Your task to perform on an android device: Add usb-c to the cart on bestbuy, then select checkout. Image 0: 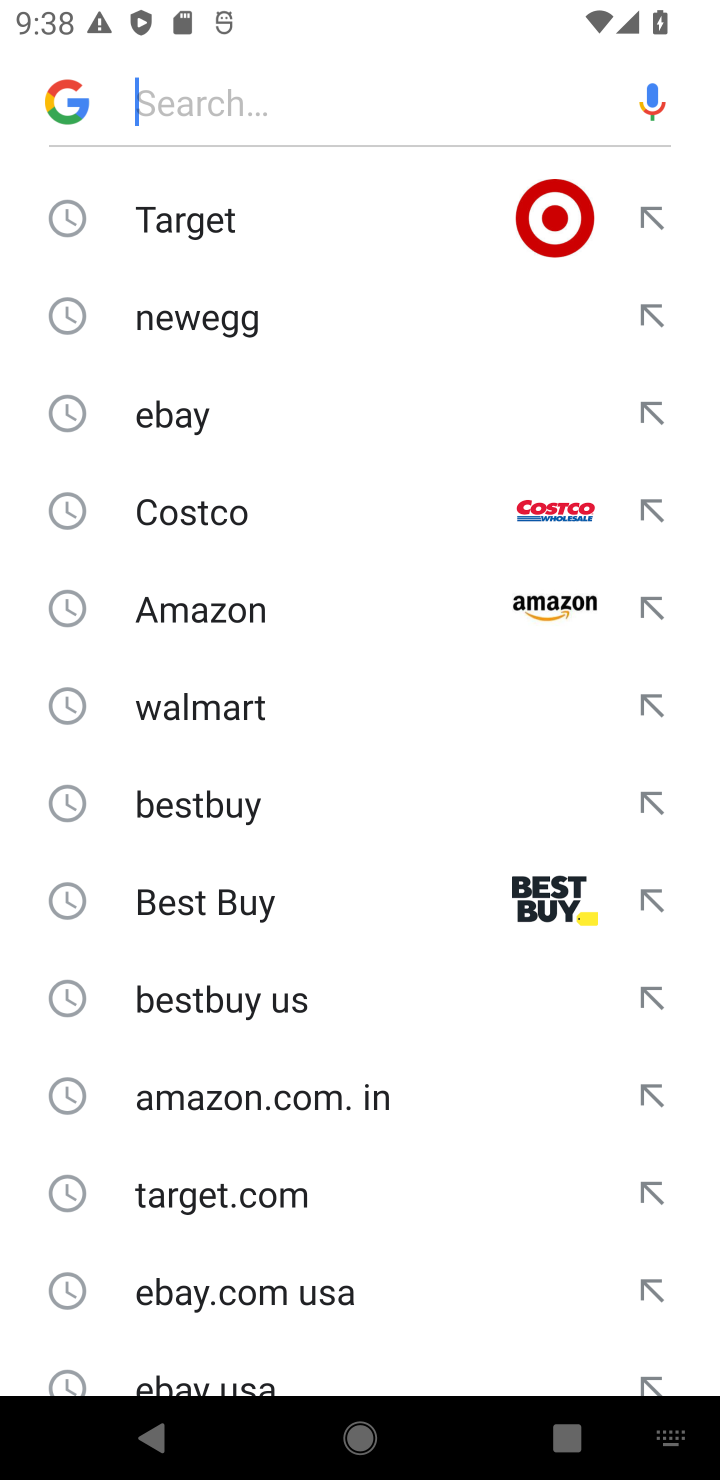
Step 0: press home button
Your task to perform on an android device: Add usb-c to the cart on bestbuy, then select checkout. Image 1: 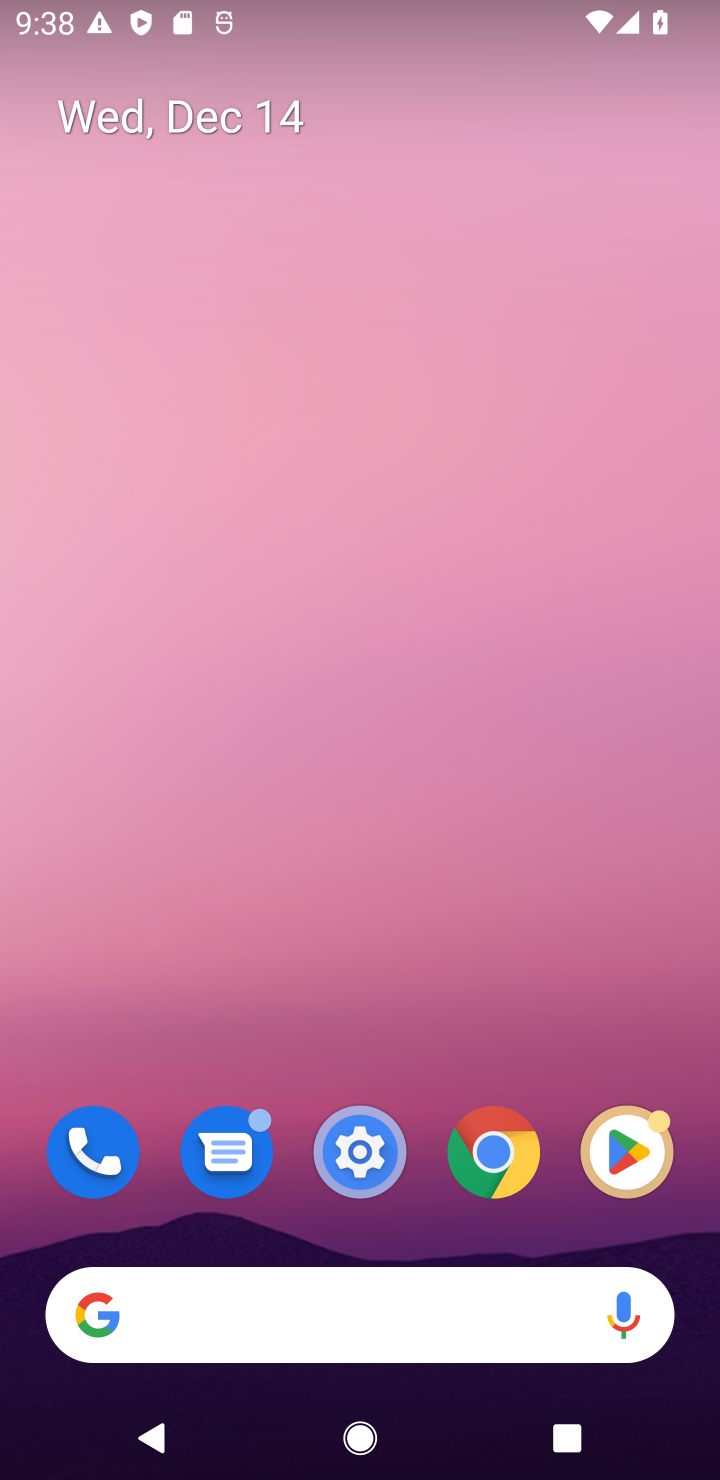
Step 1: drag from (246, 1288) to (227, 612)
Your task to perform on an android device: Add usb-c to the cart on bestbuy, then select checkout. Image 2: 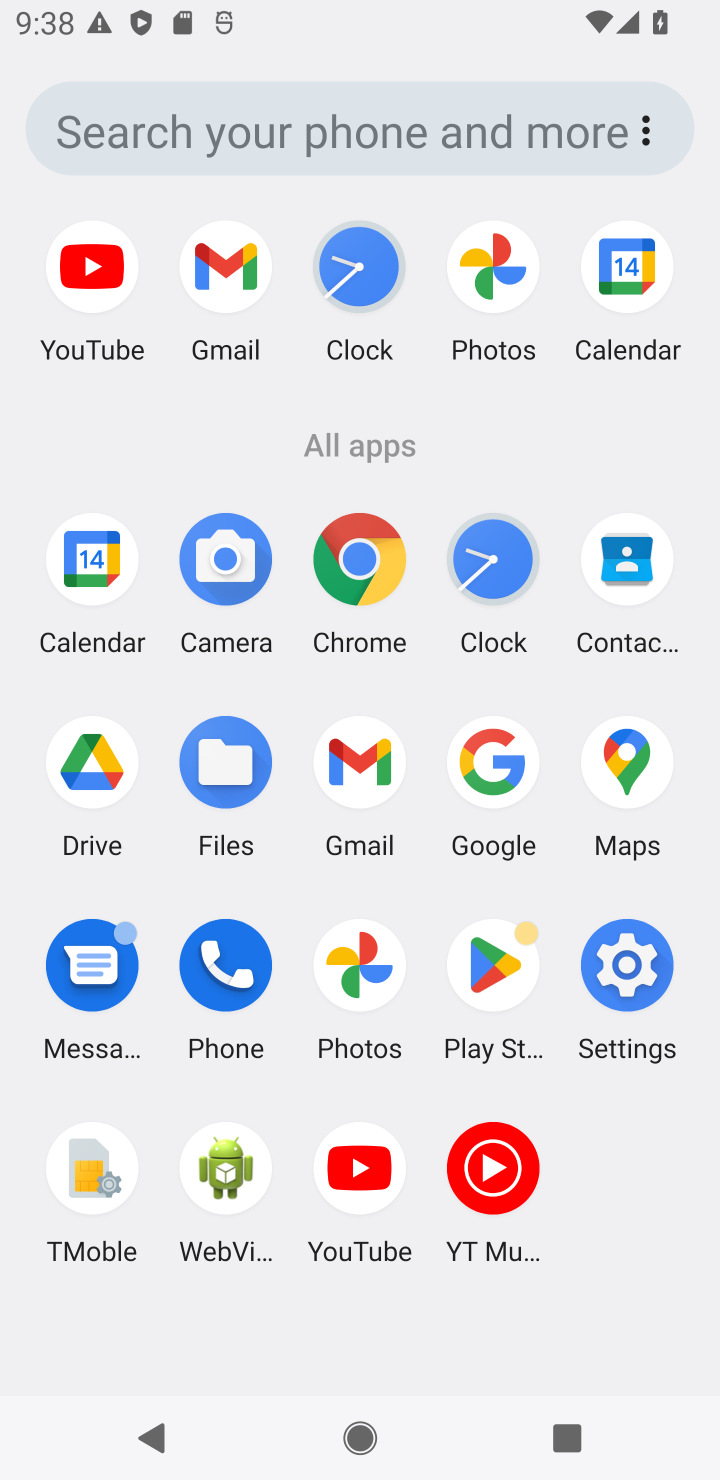
Step 2: click (502, 855)
Your task to perform on an android device: Add usb-c to the cart on bestbuy, then select checkout. Image 3: 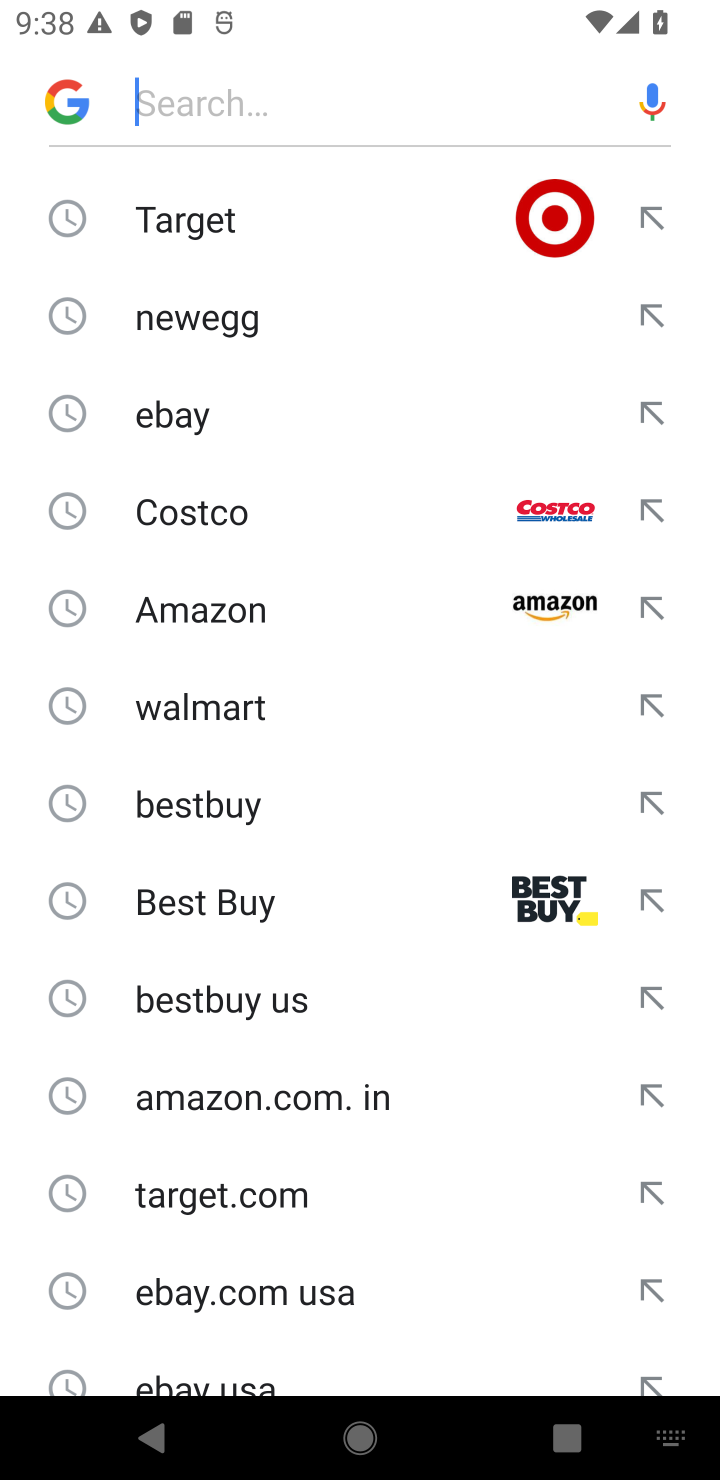
Step 3: click (196, 809)
Your task to perform on an android device: Add usb-c to the cart on bestbuy, then select checkout. Image 4: 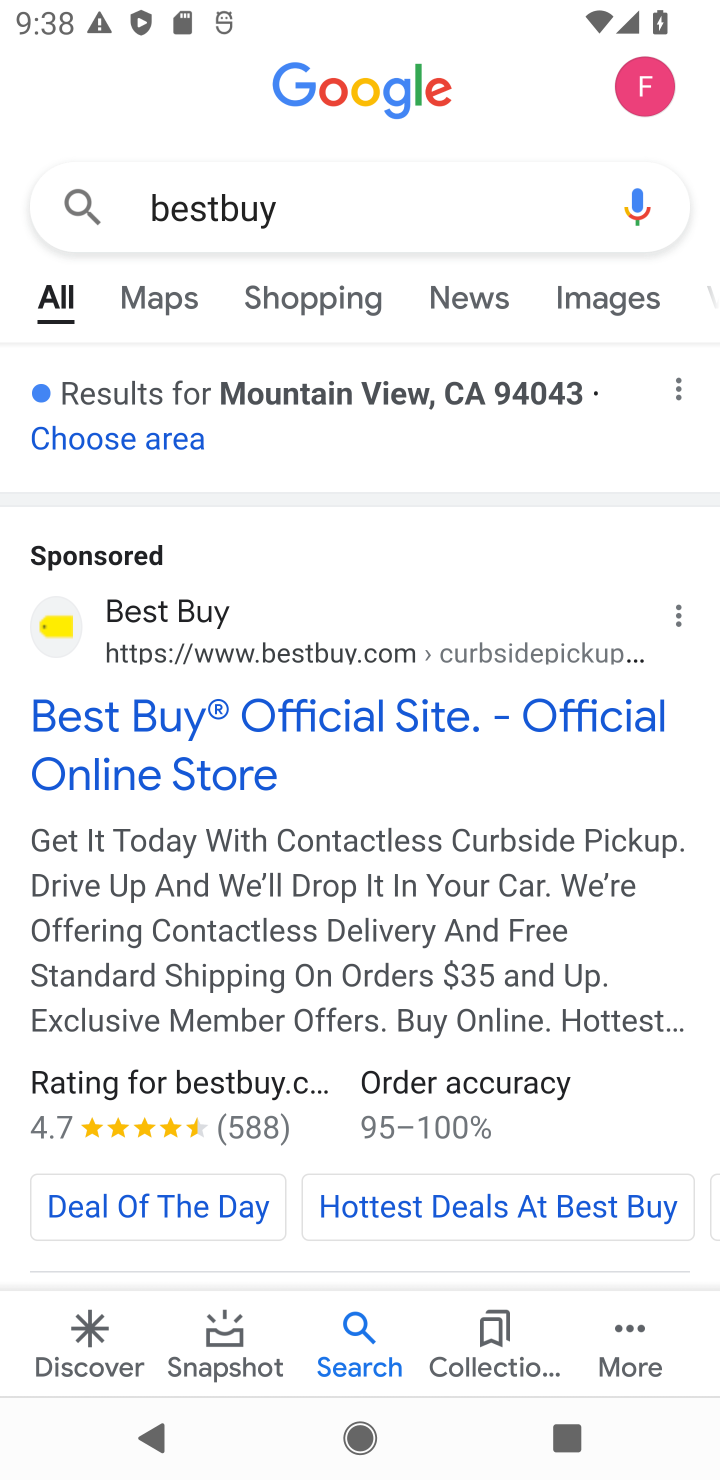
Step 4: click (193, 748)
Your task to perform on an android device: Add usb-c to the cart on bestbuy, then select checkout. Image 5: 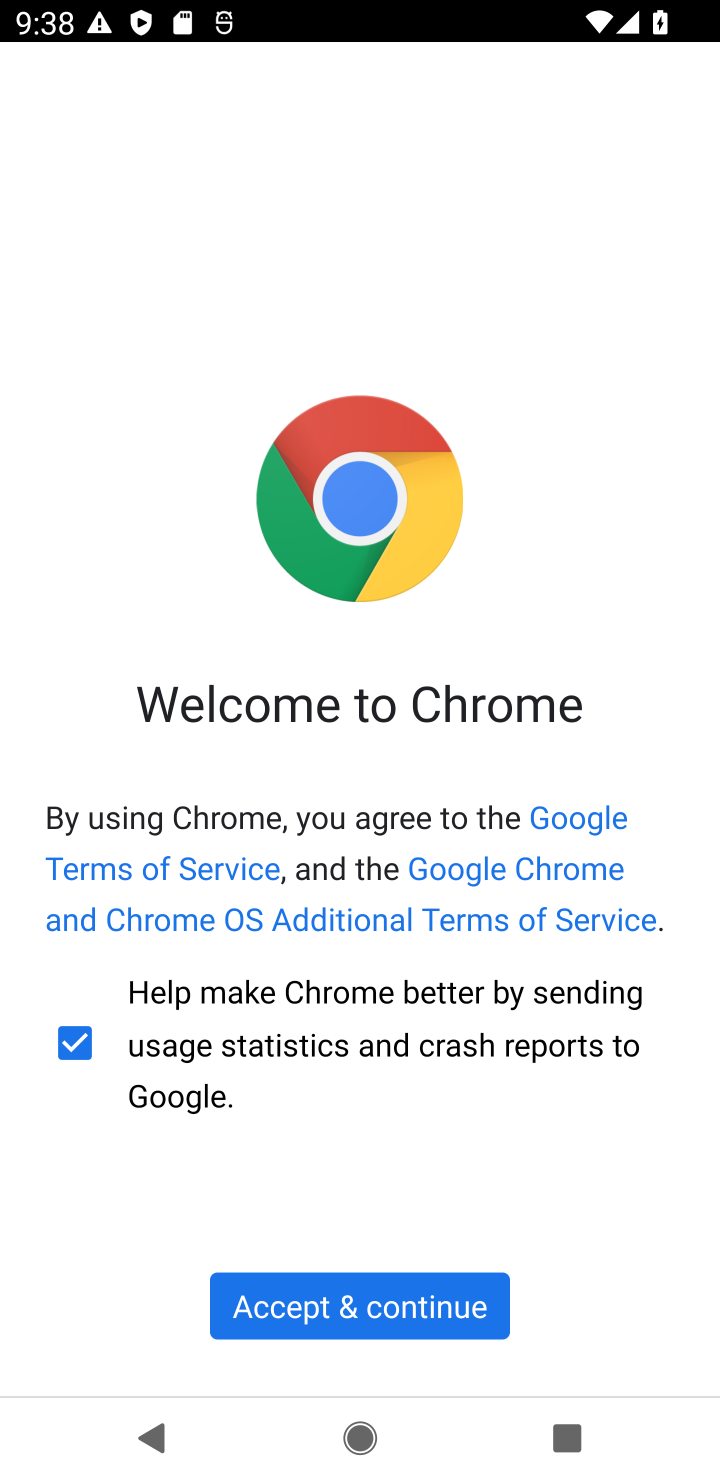
Step 5: click (297, 1307)
Your task to perform on an android device: Add usb-c to the cart on bestbuy, then select checkout. Image 6: 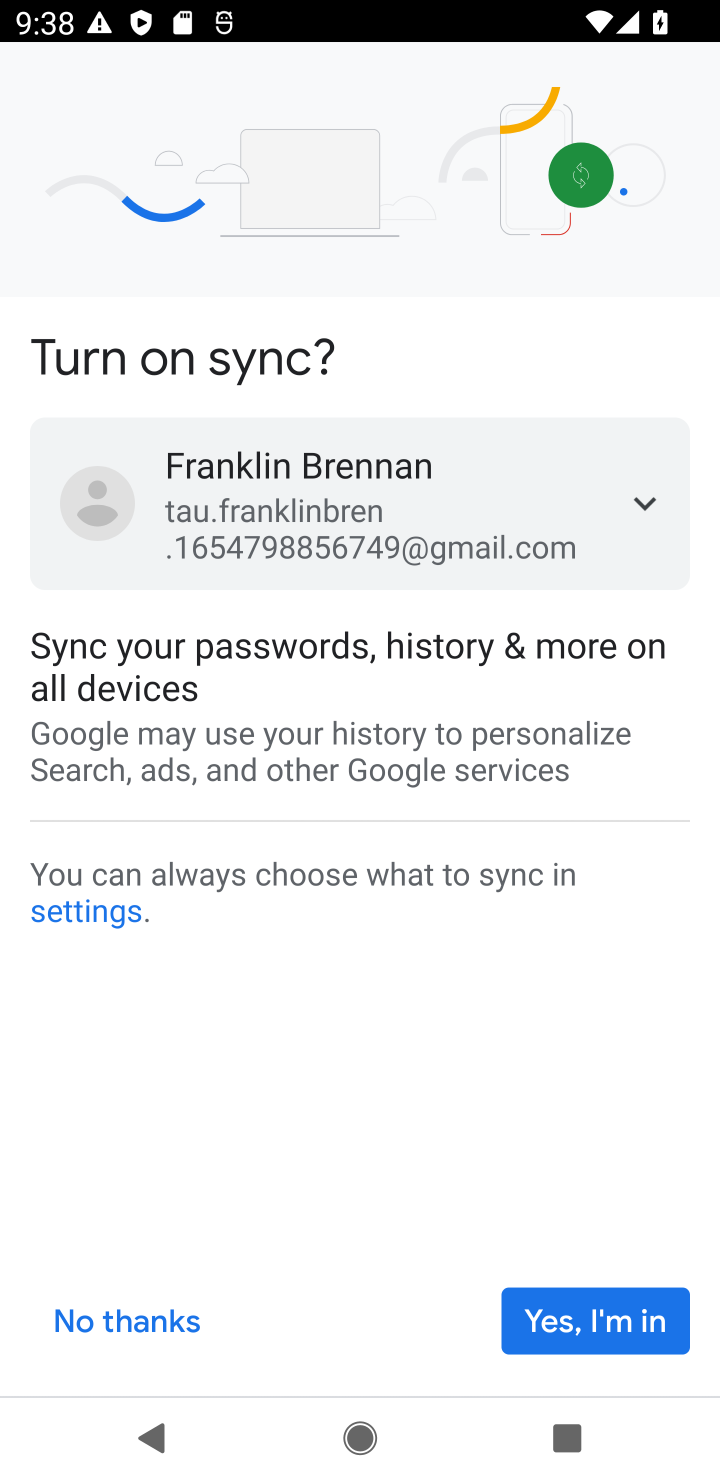
Step 6: click (534, 1329)
Your task to perform on an android device: Add usb-c to the cart on bestbuy, then select checkout. Image 7: 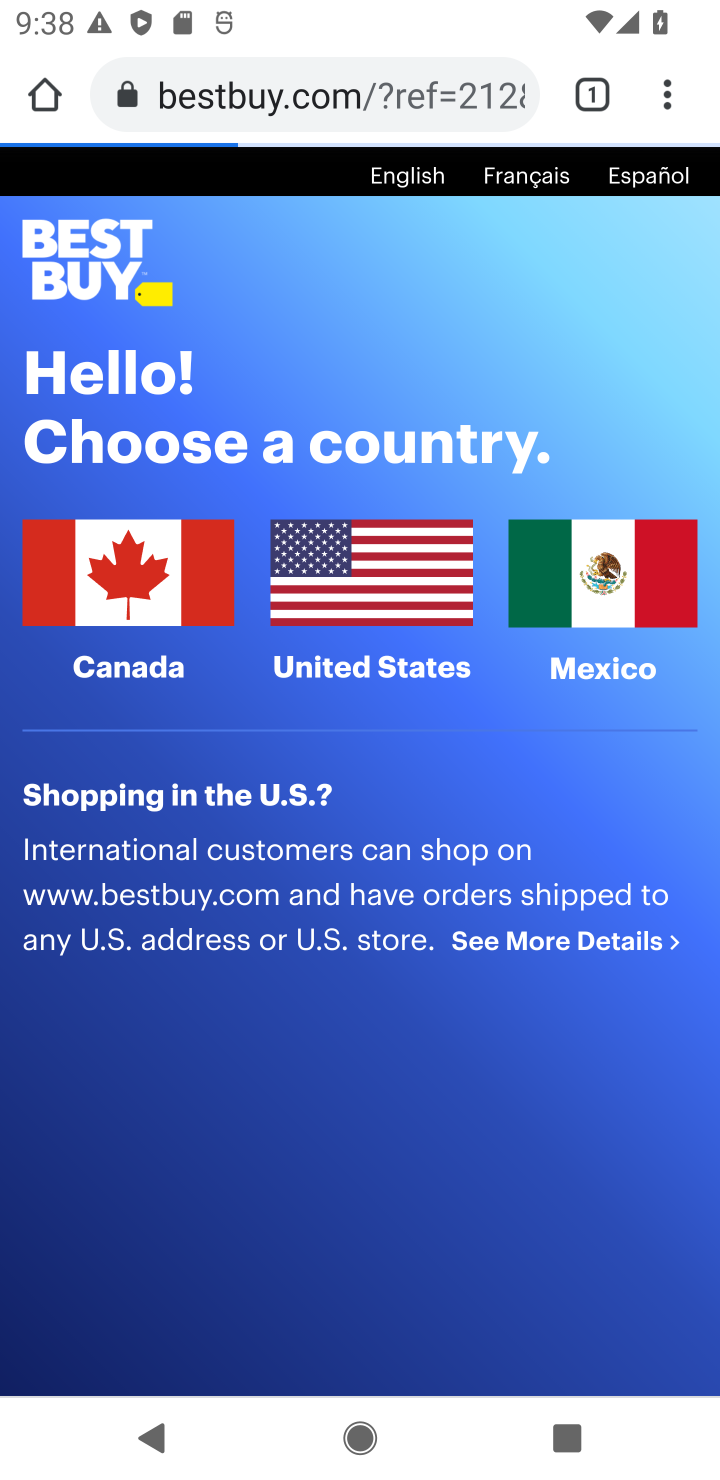
Step 7: click (383, 593)
Your task to perform on an android device: Add usb-c to the cart on bestbuy, then select checkout. Image 8: 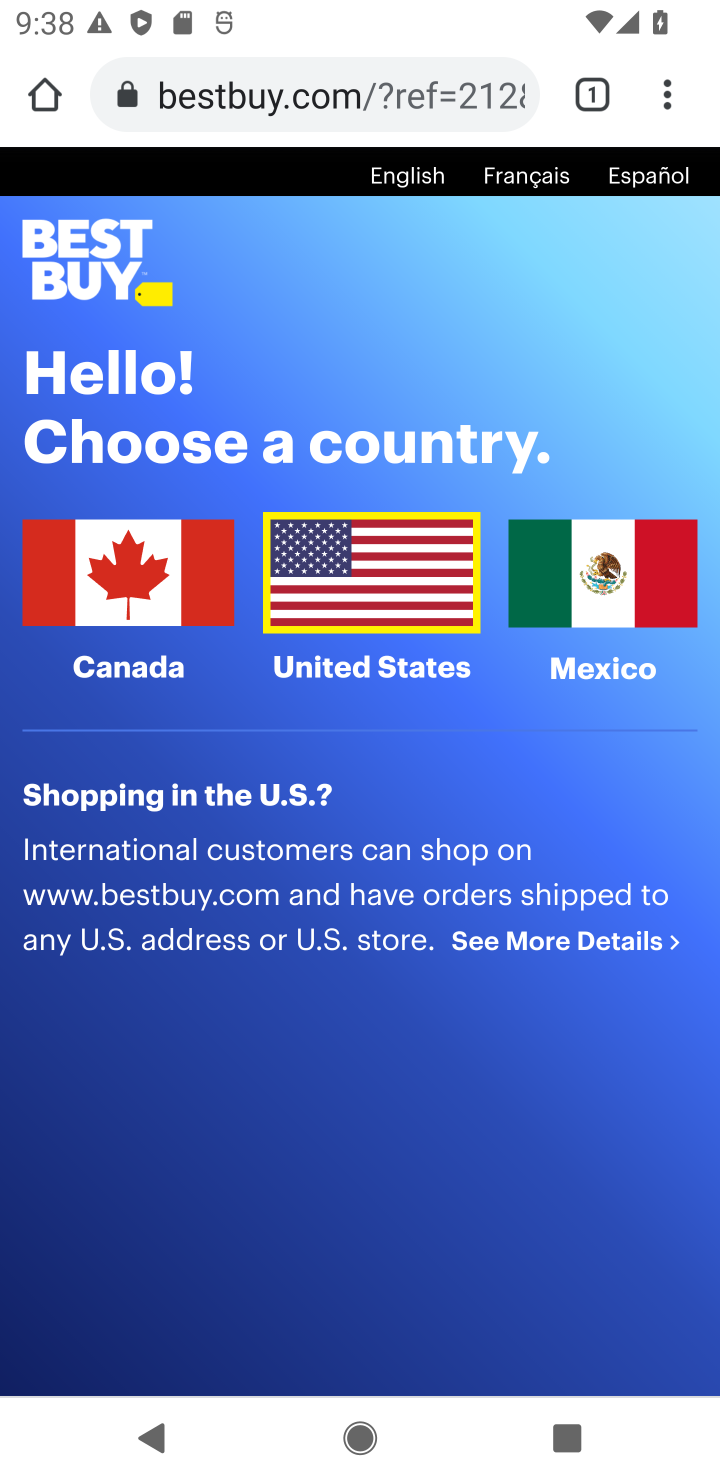
Step 8: click (395, 583)
Your task to perform on an android device: Add usb-c to the cart on bestbuy, then select checkout. Image 9: 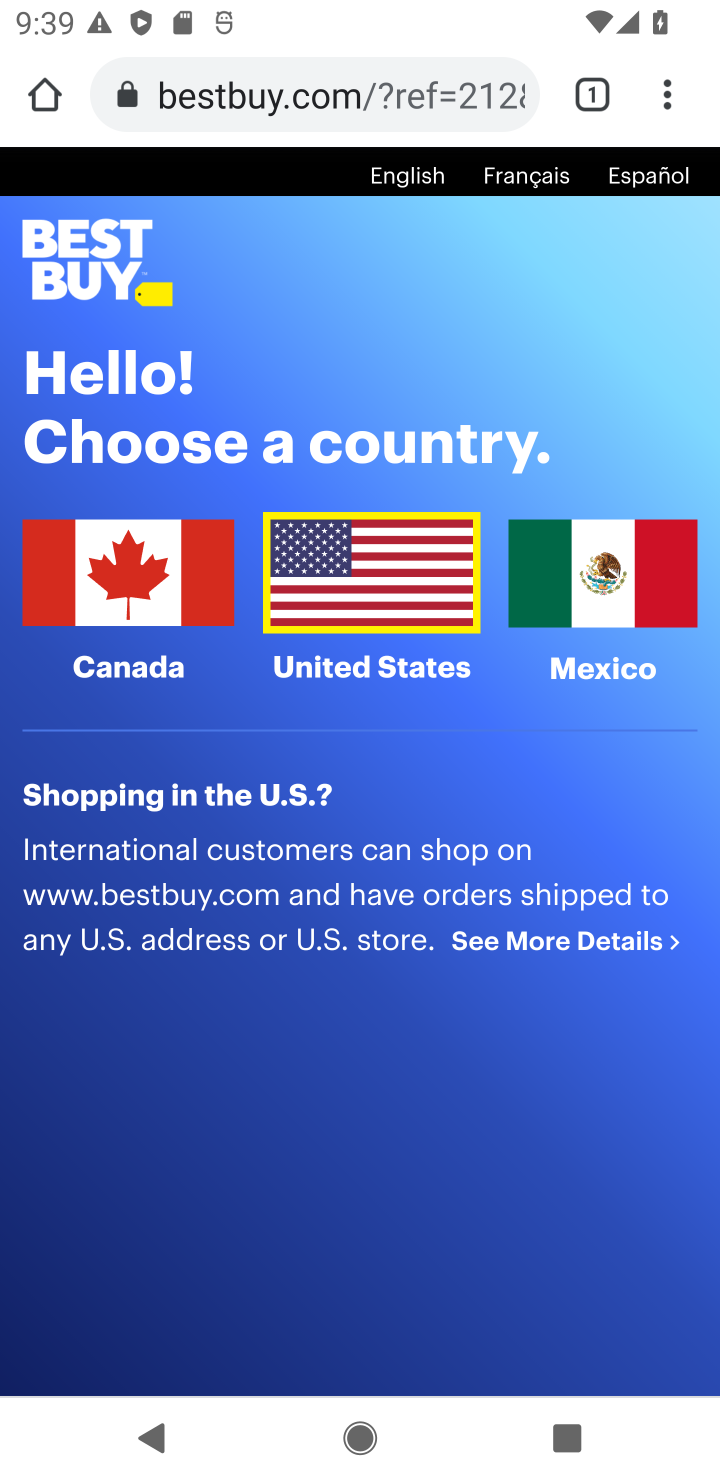
Step 9: click (92, 599)
Your task to perform on an android device: Add usb-c to the cart on bestbuy, then select checkout. Image 10: 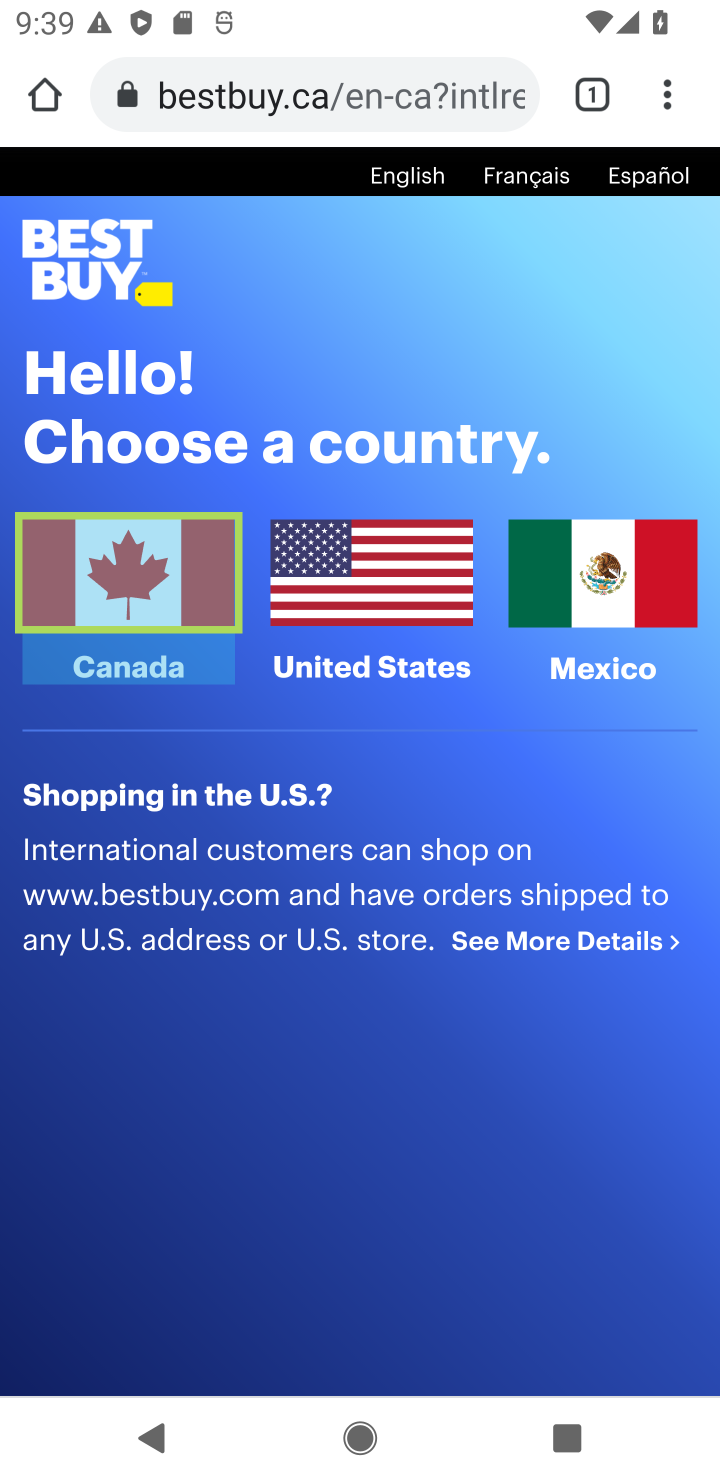
Step 10: click (92, 599)
Your task to perform on an android device: Add usb-c to the cart on bestbuy, then select checkout. Image 11: 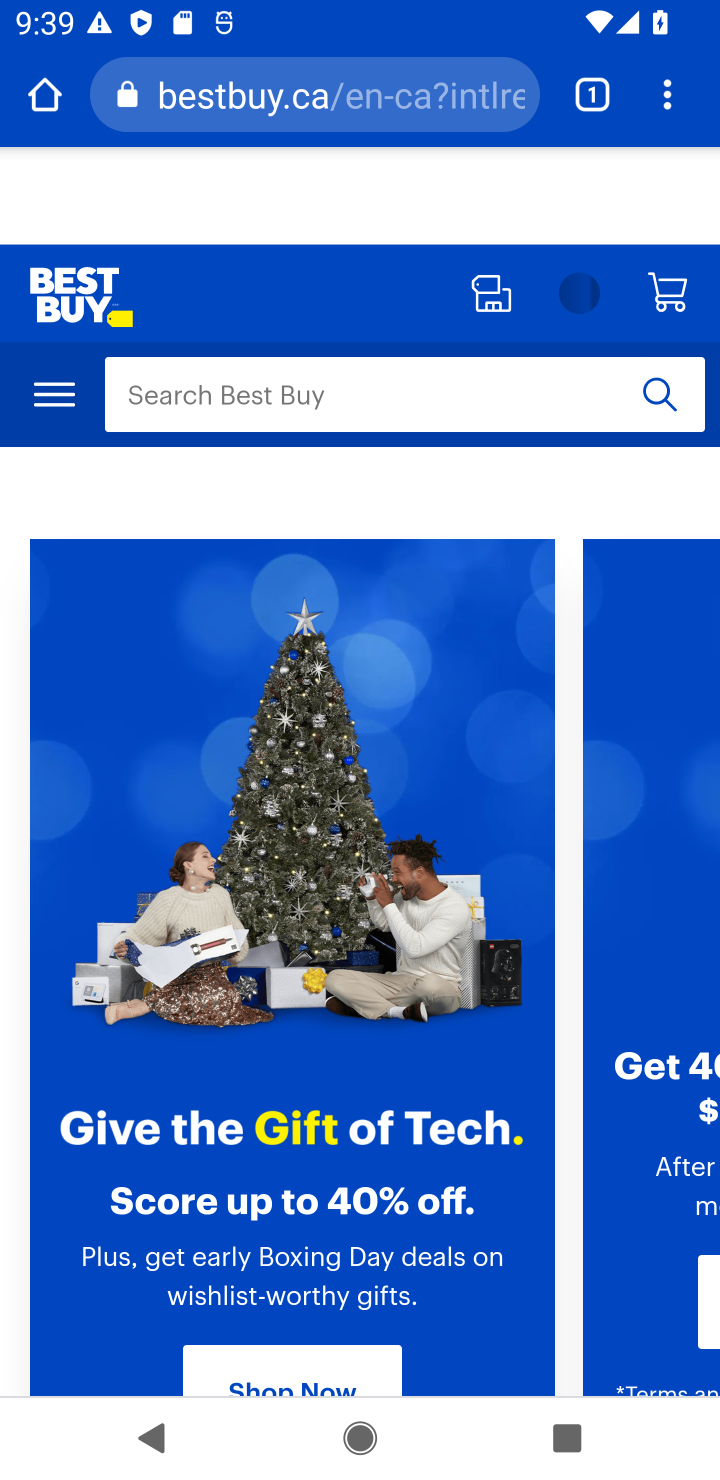
Step 11: click (296, 390)
Your task to perform on an android device: Add usb-c to the cart on bestbuy, then select checkout. Image 12: 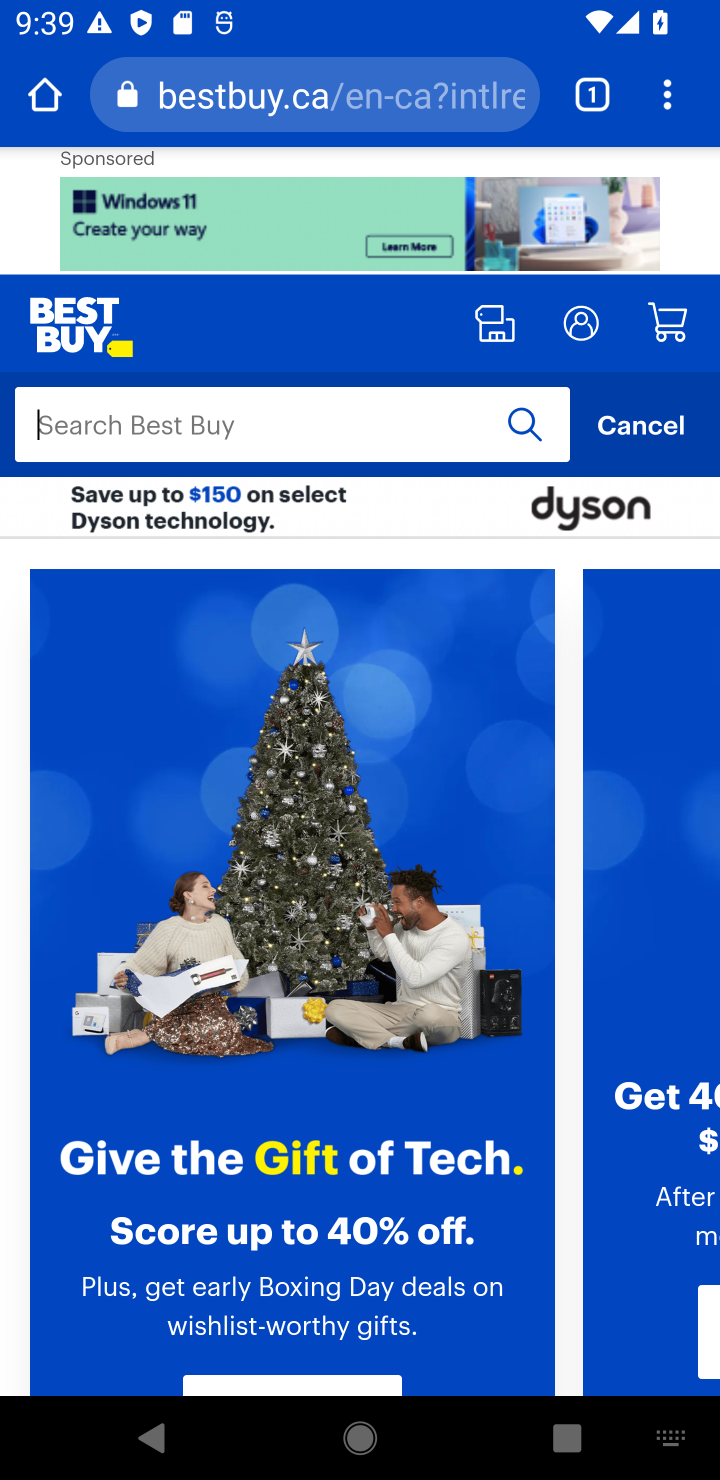
Step 12: type "usb-c"
Your task to perform on an android device: Add usb-c to the cart on bestbuy, then select checkout. Image 13: 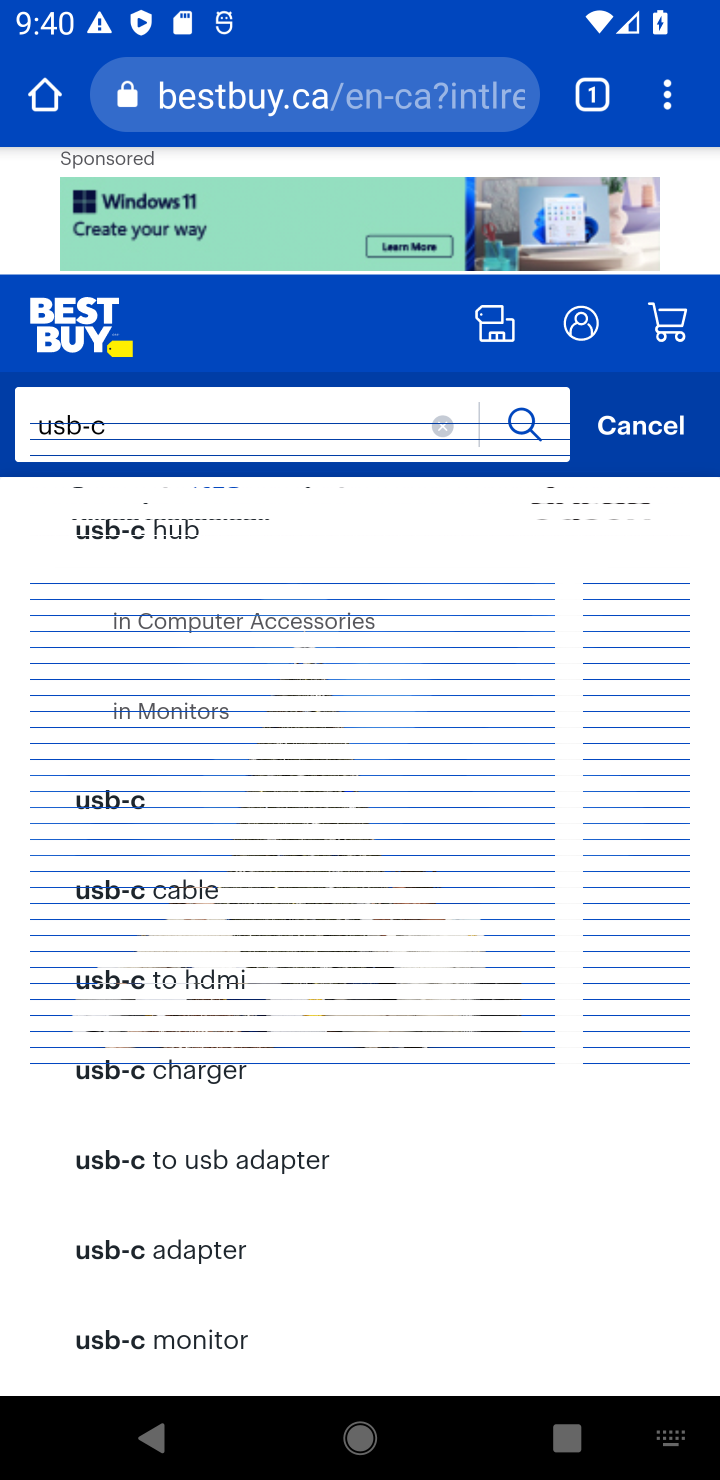
Step 13: click (115, 800)
Your task to perform on an android device: Add usb-c to the cart on bestbuy, then select checkout. Image 14: 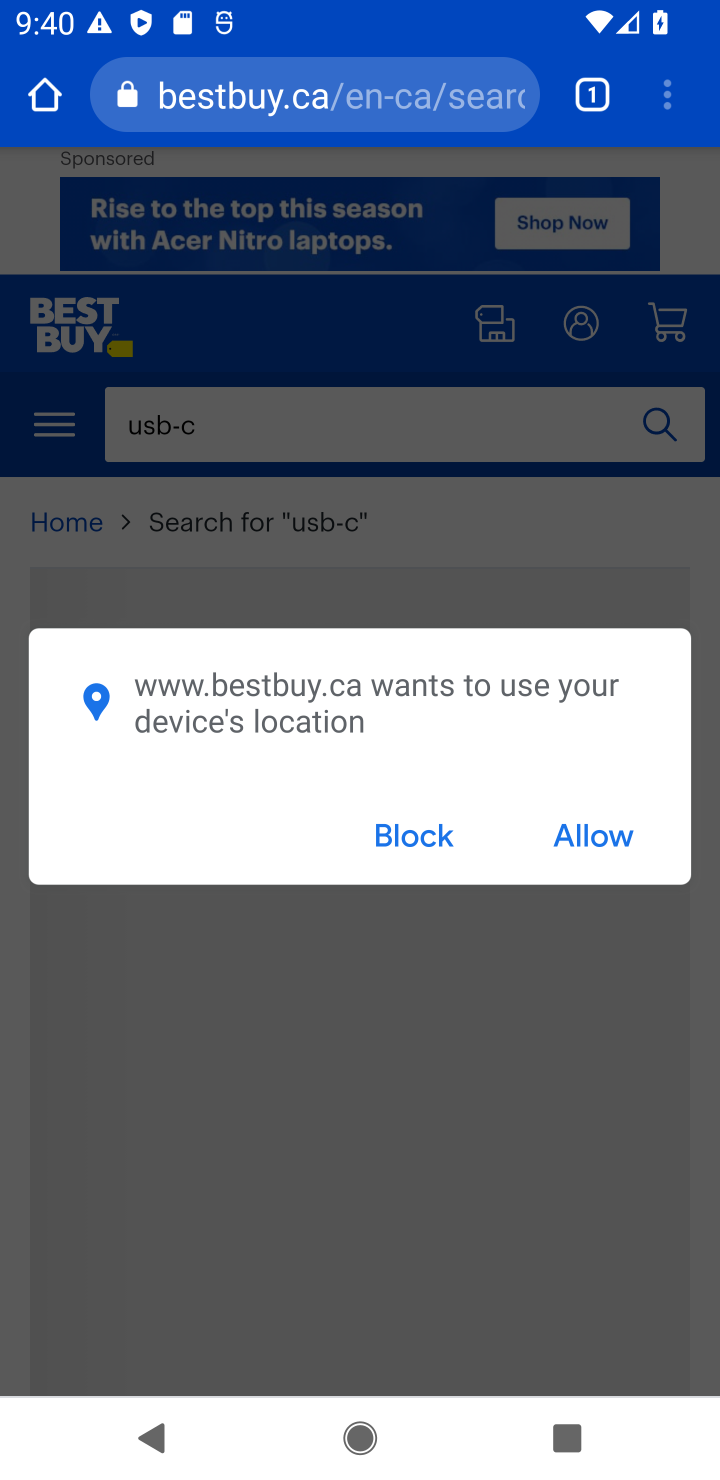
Step 14: click (594, 830)
Your task to perform on an android device: Add usb-c to the cart on bestbuy, then select checkout. Image 15: 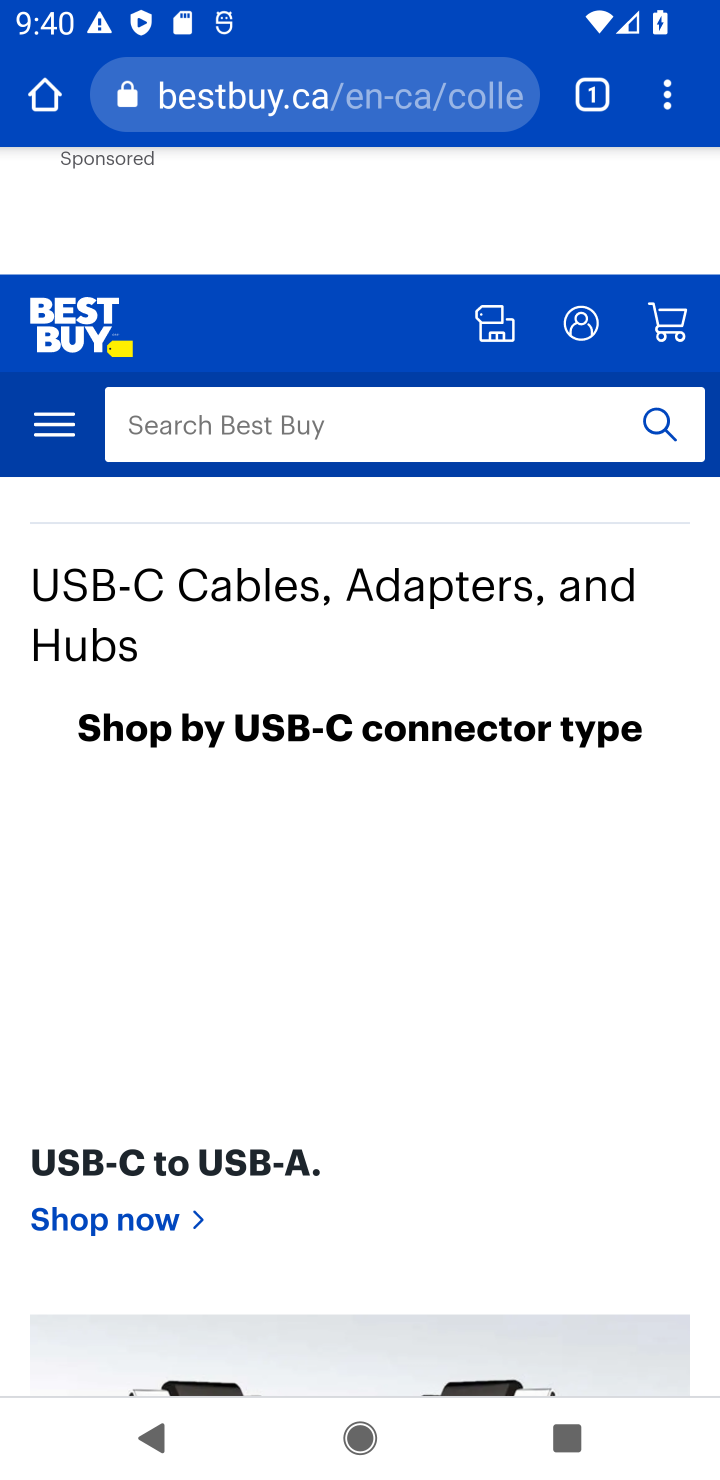
Step 15: drag from (90, 1191) to (325, 1053)
Your task to perform on an android device: Add usb-c to the cart on bestbuy, then select checkout. Image 16: 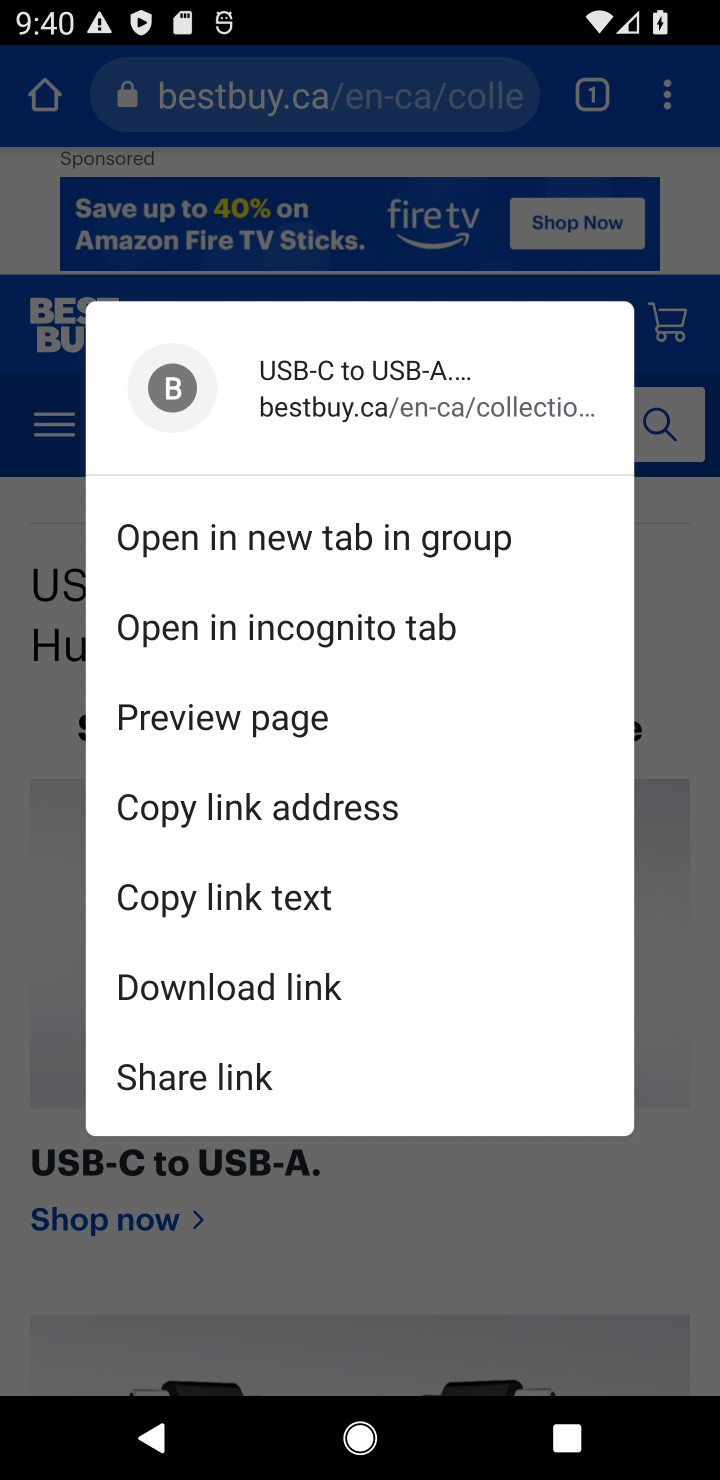
Step 16: click (382, 1191)
Your task to perform on an android device: Add usb-c to the cart on bestbuy, then select checkout. Image 17: 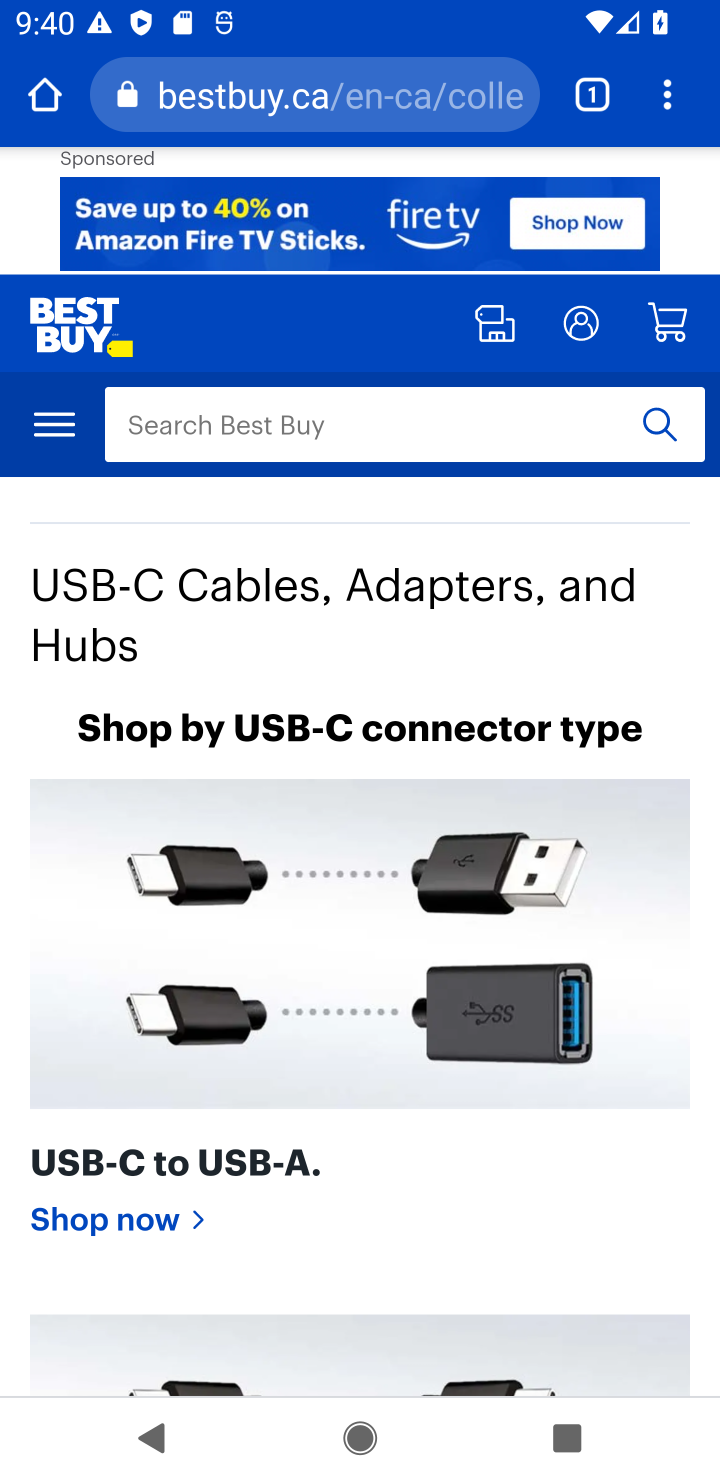
Step 17: drag from (381, 1274) to (335, 549)
Your task to perform on an android device: Add usb-c to the cart on bestbuy, then select checkout. Image 18: 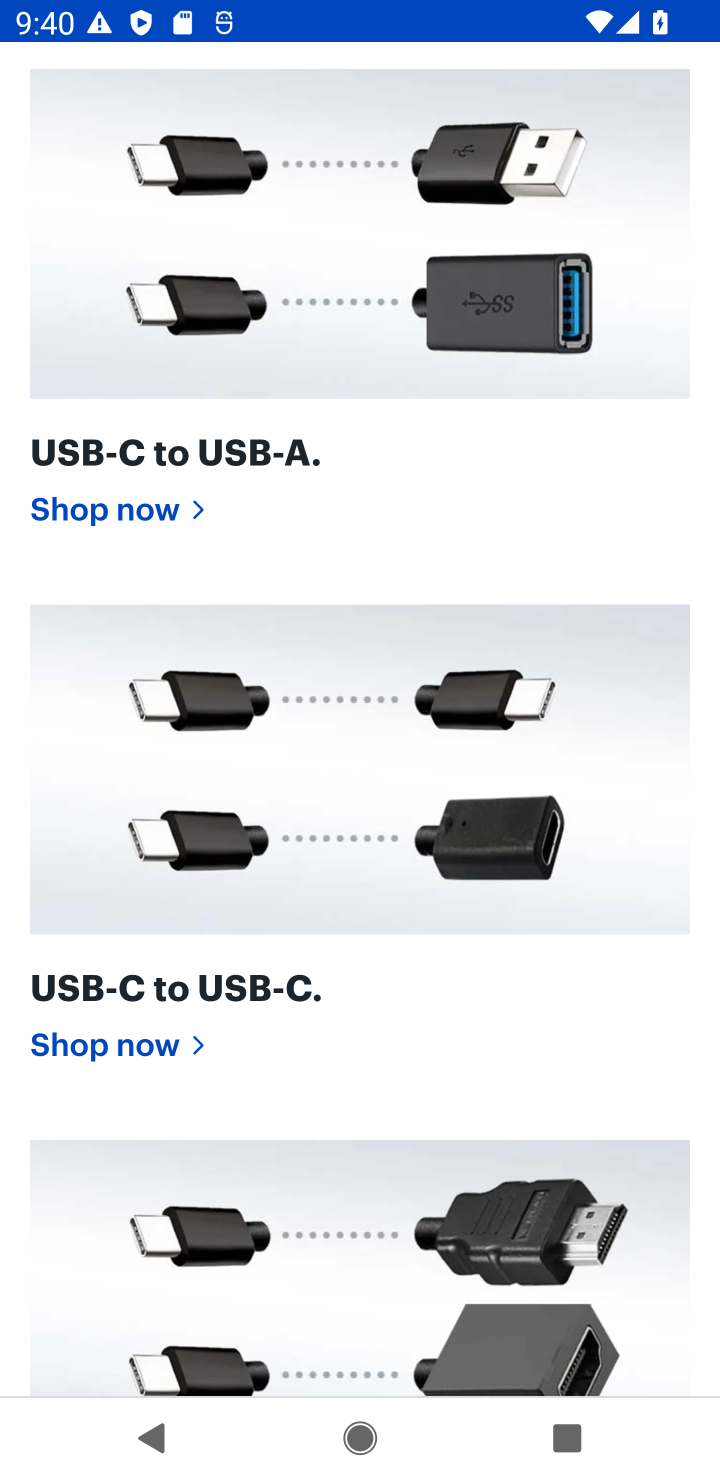
Step 18: click (133, 509)
Your task to perform on an android device: Add usb-c to the cart on bestbuy, then select checkout. Image 19: 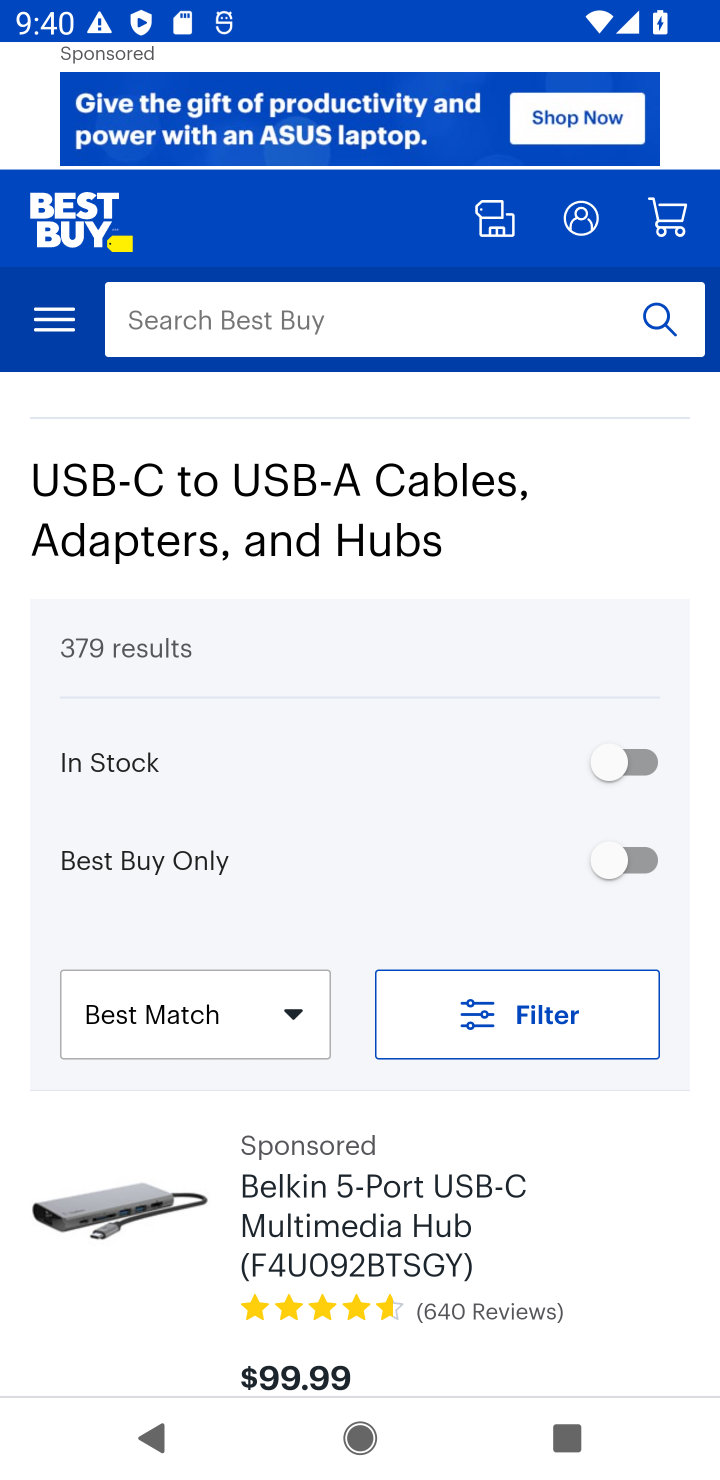
Step 19: drag from (342, 1218) to (391, 387)
Your task to perform on an android device: Add usb-c to the cart on bestbuy, then select checkout. Image 20: 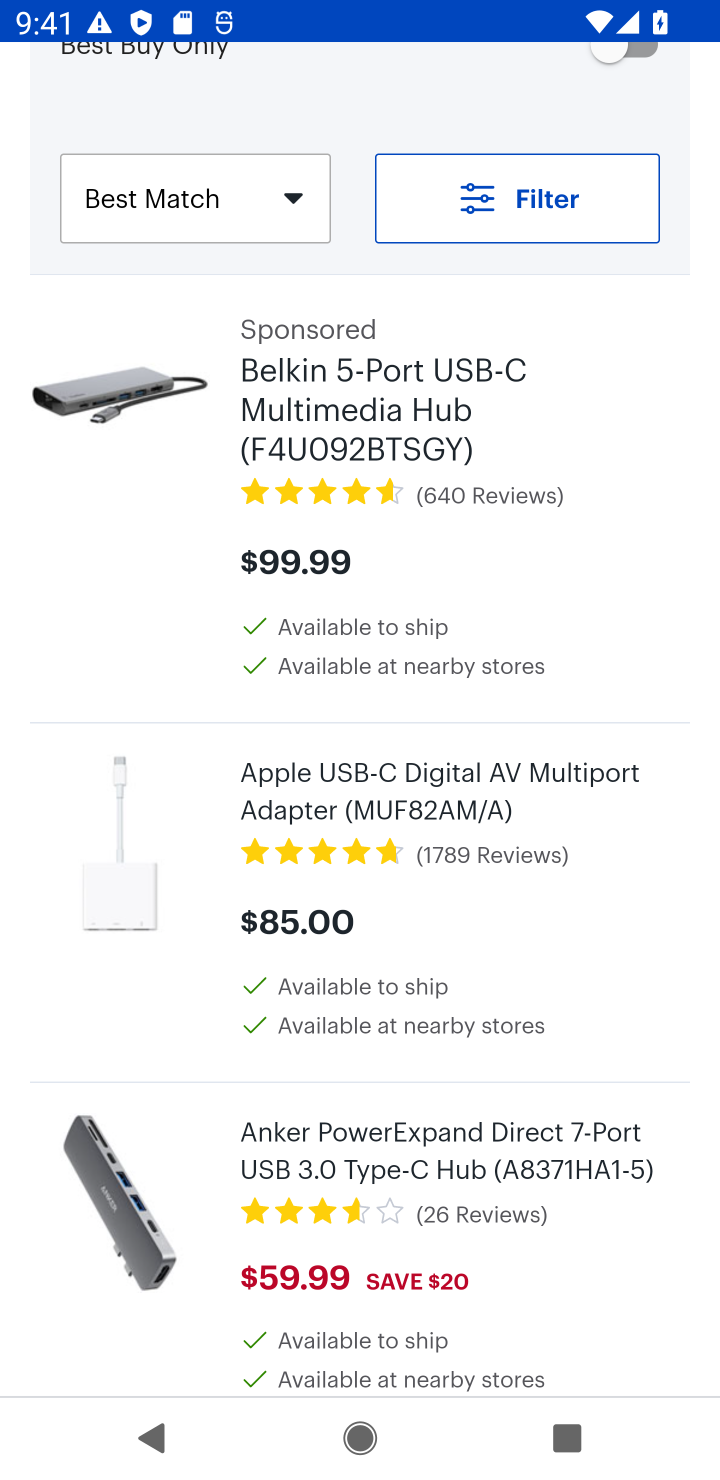
Step 20: click (351, 409)
Your task to perform on an android device: Add usb-c to the cart on bestbuy, then select checkout. Image 21: 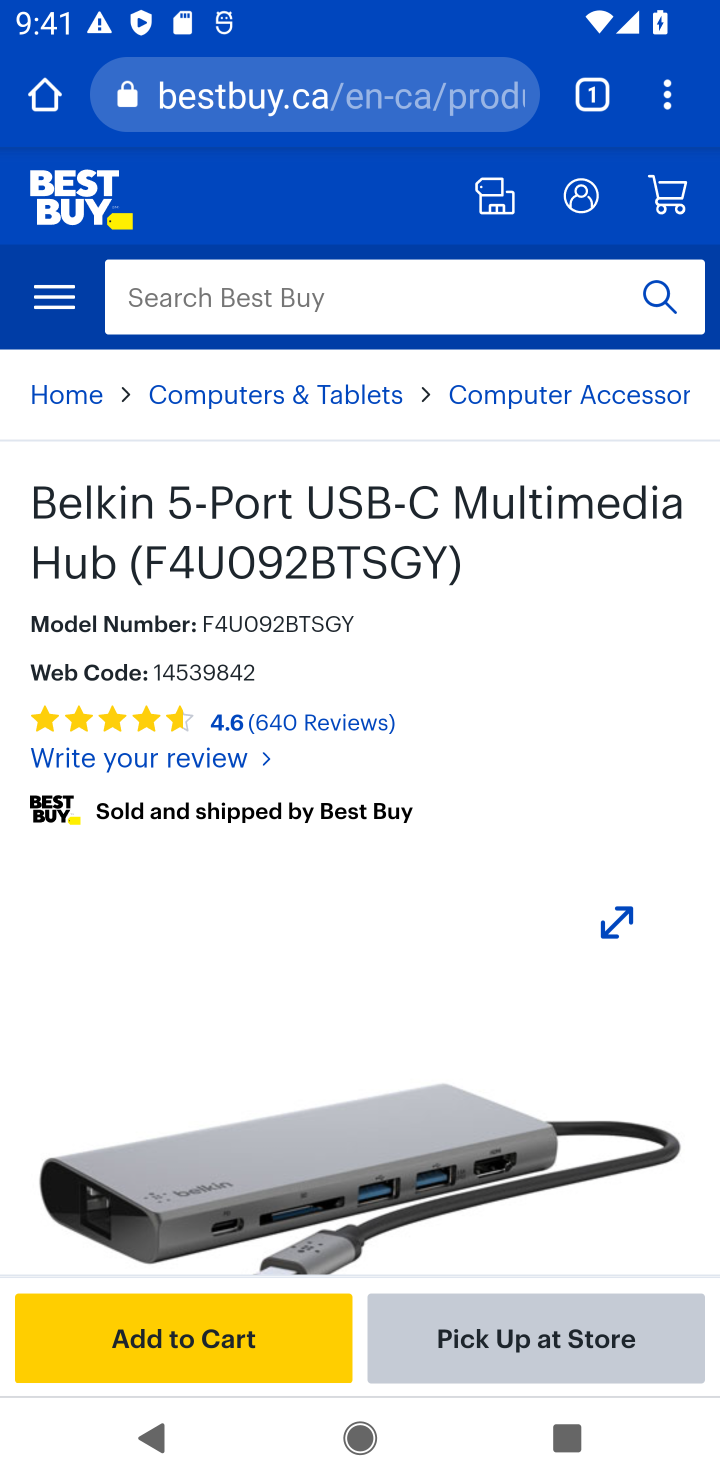
Step 21: click (212, 1346)
Your task to perform on an android device: Add usb-c to the cart on bestbuy, then select checkout. Image 22: 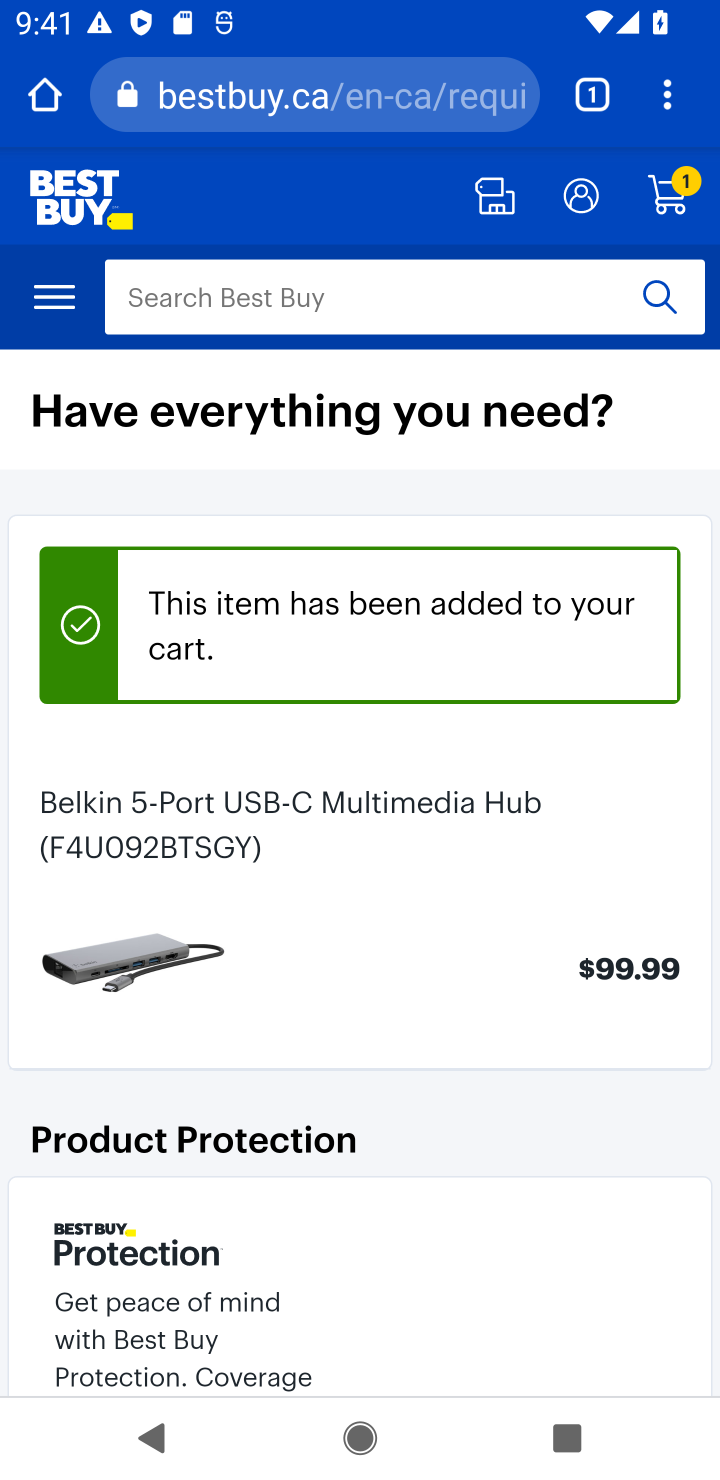
Step 22: click (676, 197)
Your task to perform on an android device: Add usb-c to the cart on bestbuy, then select checkout. Image 23: 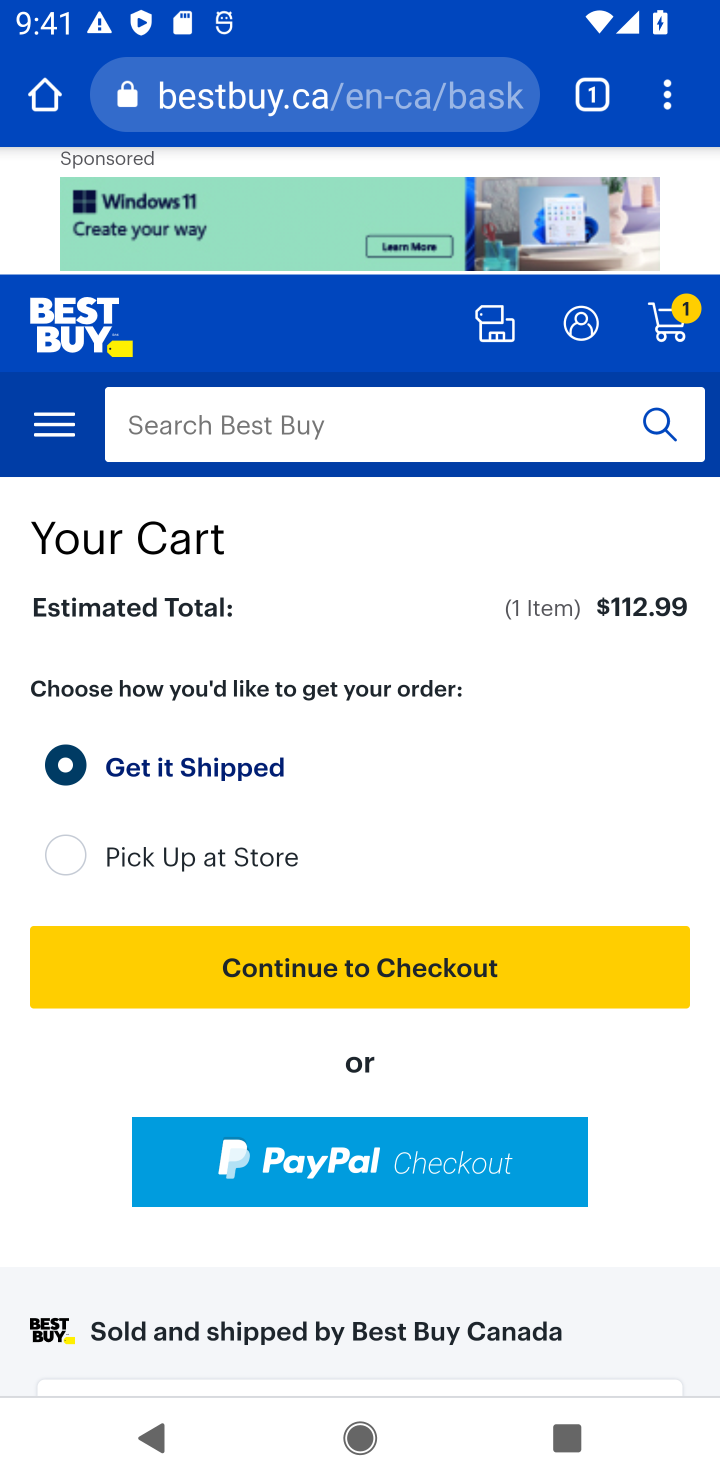
Step 23: click (340, 972)
Your task to perform on an android device: Add usb-c to the cart on bestbuy, then select checkout. Image 24: 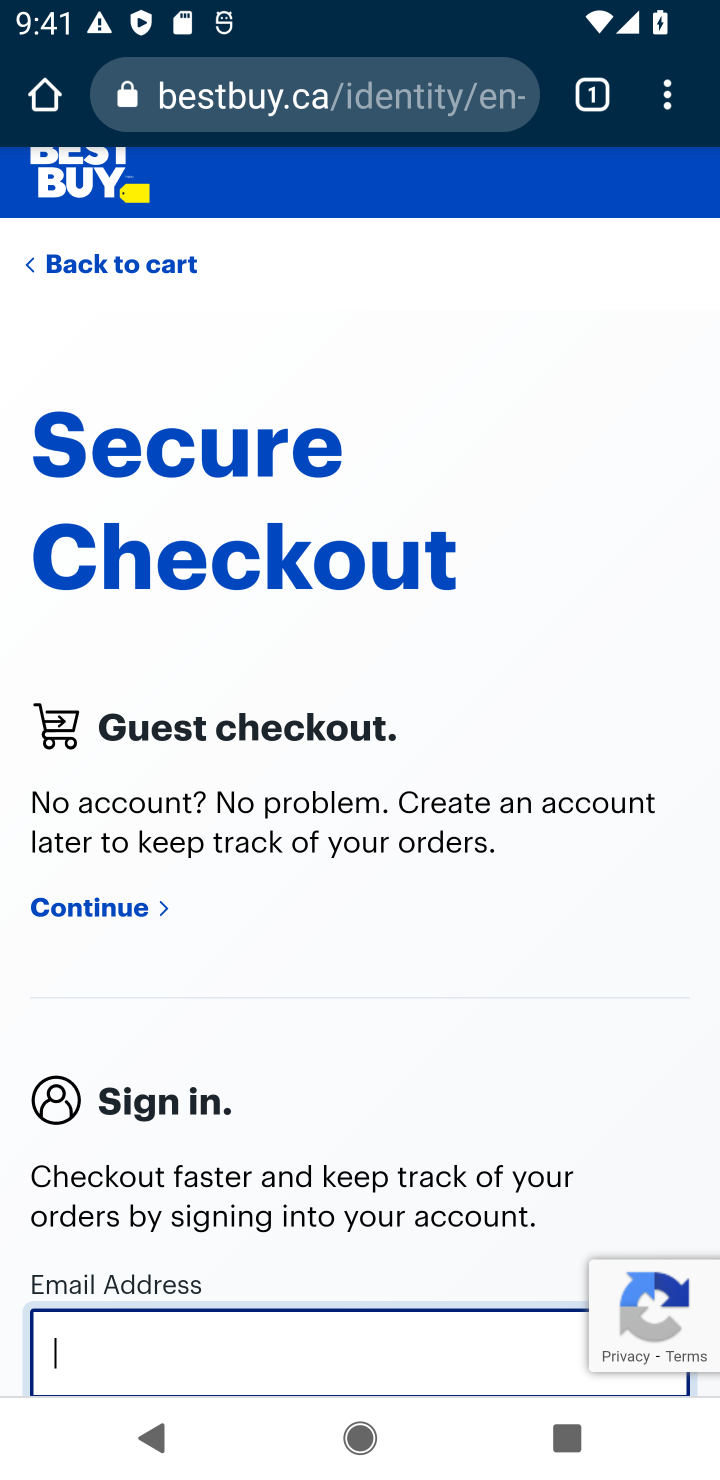
Step 24: task complete